Your task to perform on an android device: check the backup settings in the google photos Image 0: 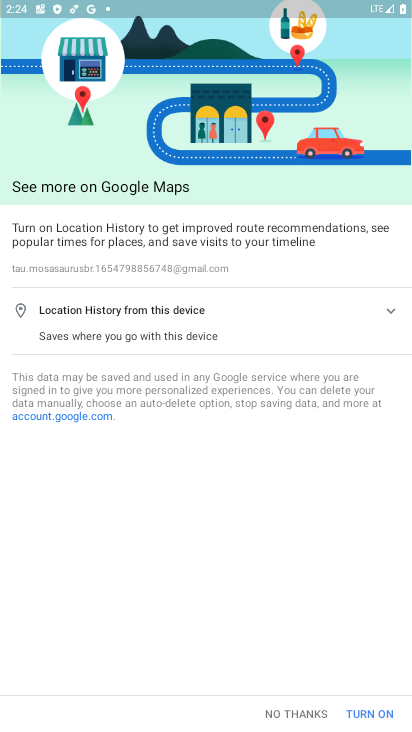
Step 0: press home button
Your task to perform on an android device: check the backup settings in the google photos Image 1: 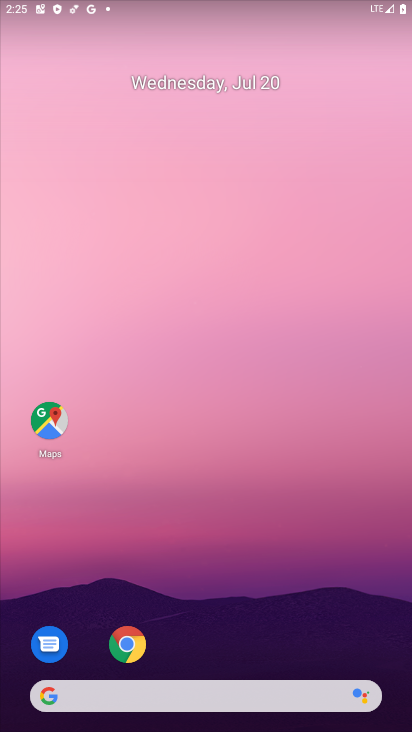
Step 1: drag from (217, 688) to (270, 55)
Your task to perform on an android device: check the backup settings in the google photos Image 2: 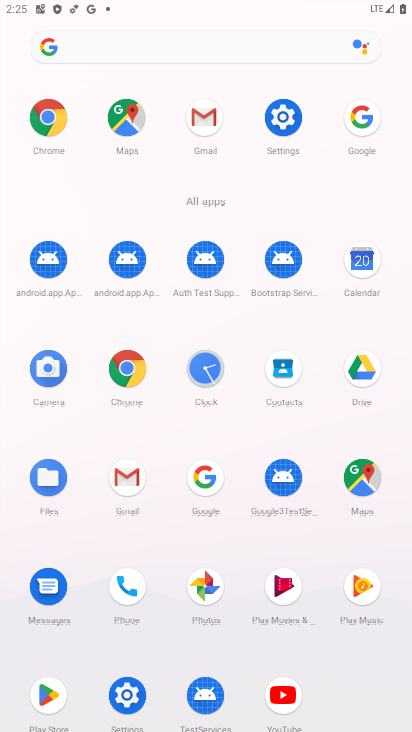
Step 2: click (207, 587)
Your task to perform on an android device: check the backup settings in the google photos Image 3: 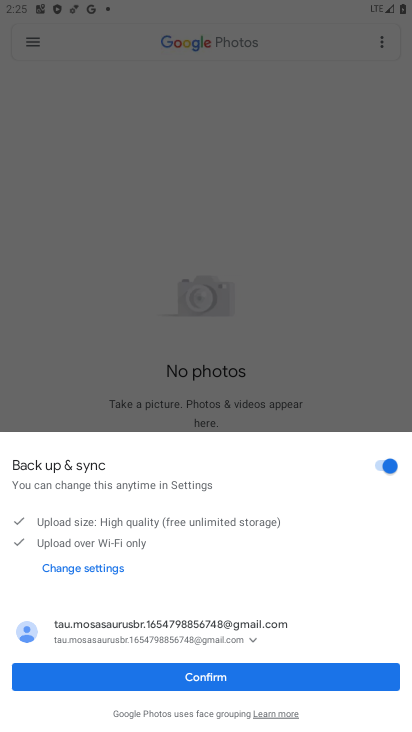
Step 3: click (212, 678)
Your task to perform on an android device: check the backup settings in the google photos Image 4: 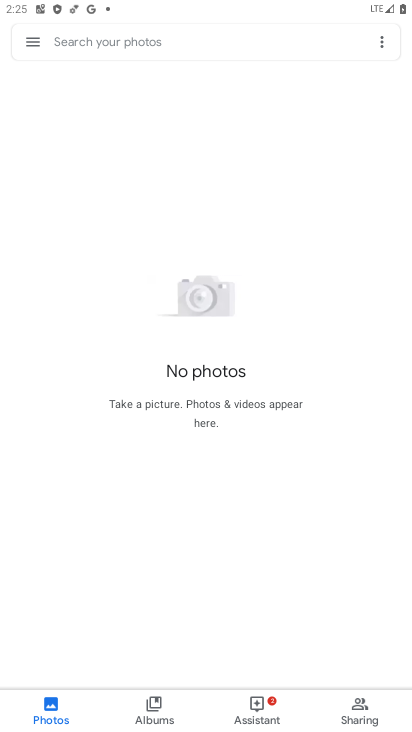
Step 4: click (36, 41)
Your task to perform on an android device: check the backup settings in the google photos Image 5: 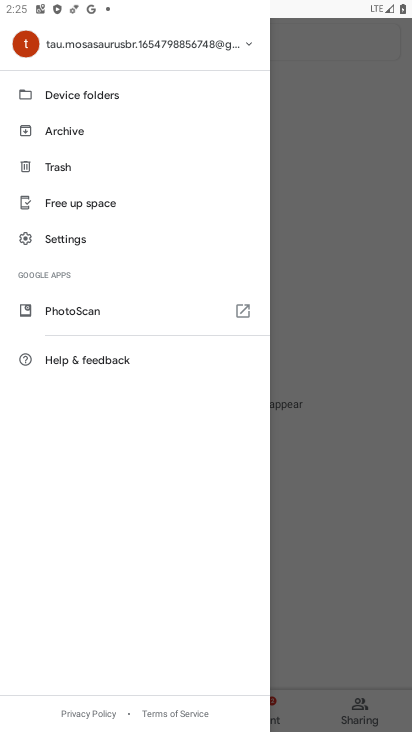
Step 5: click (65, 238)
Your task to perform on an android device: check the backup settings in the google photos Image 6: 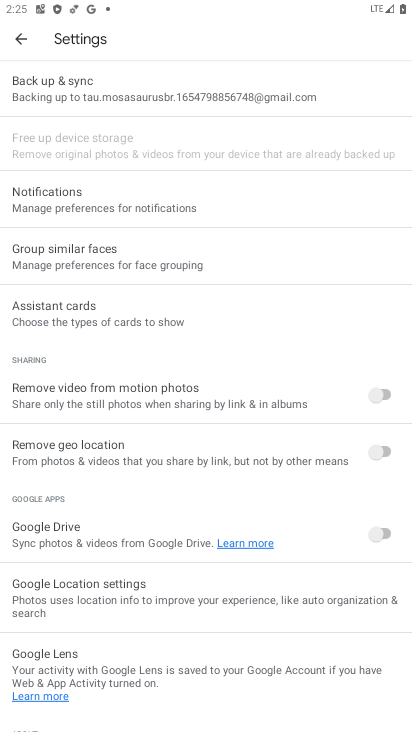
Step 6: click (163, 96)
Your task to perform on an android device: check the backup settings in the google photos Image 7: 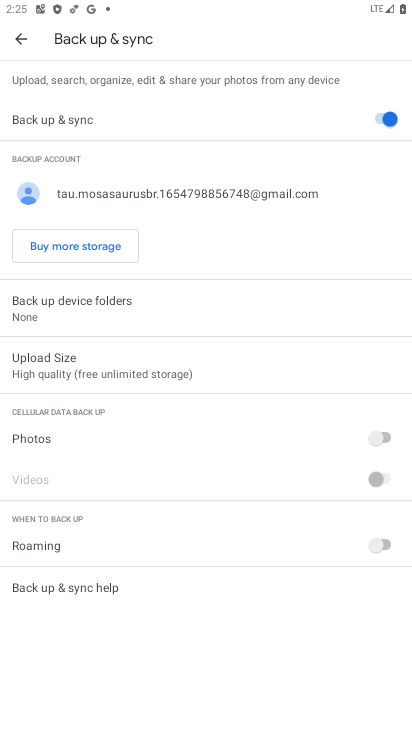
Step 7: task complete